Your task to perform on an android device: Open calendar and show me the first week of next month Image 0: 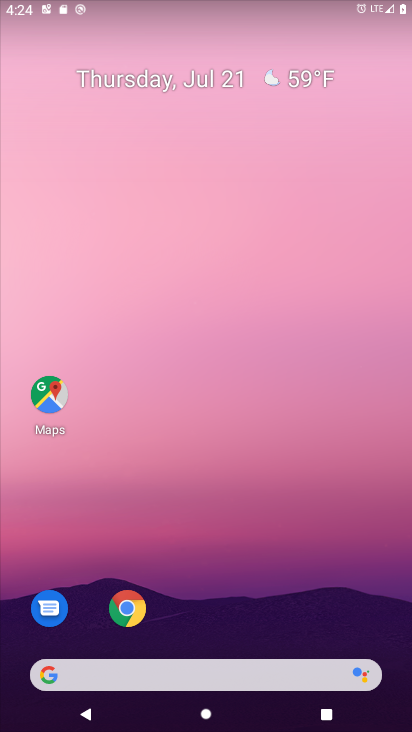
Step 0: drag from (259, 675) to (291, 0)
Your task to perform on an android device: Open calendar and show me the first week of next month Image 1: 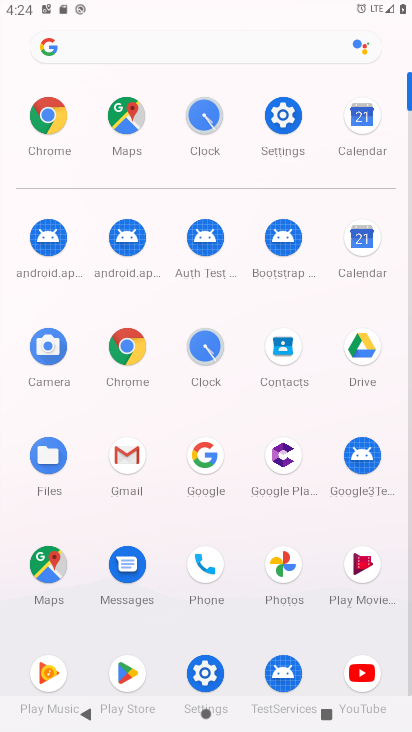
Step 1: click (365, 244)
Your task to perform on an android device: Open calendar and show me the first week of next month Image 2: 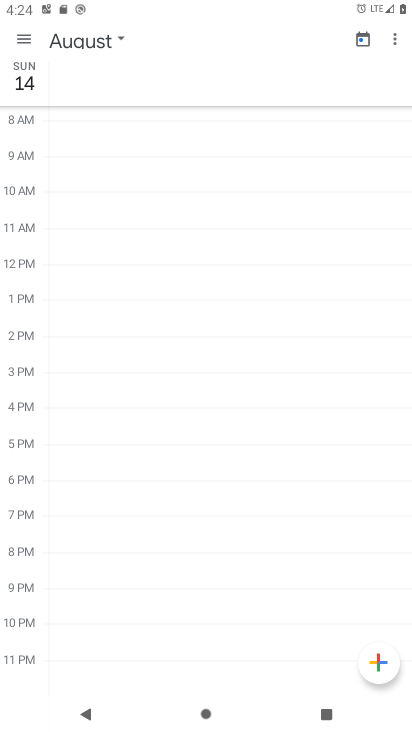
Step 2: click (116, 37)
Your task to perform on an android device: Open calendar and show me the first week of next month Image 3: 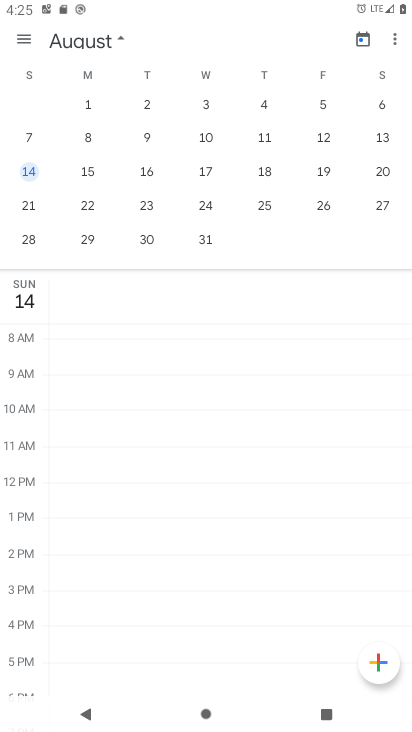
Step 3: click (263, 102)
Your task to perform on an android device: Open calendar and show me the first week of next month Image 4: 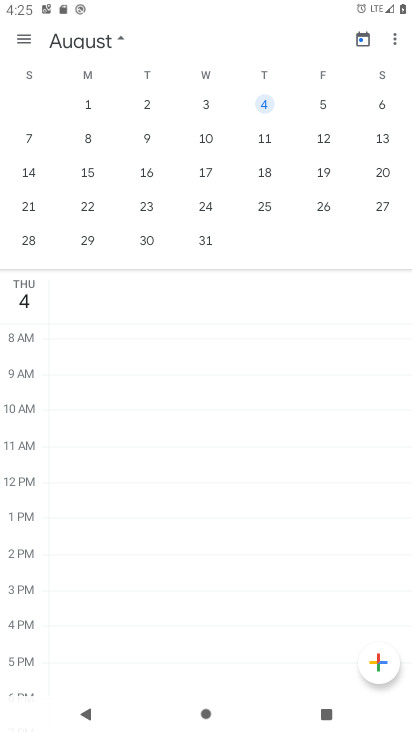
Step 4: click (26, 35)
Your task to perform on an android device: Open calendar and show me the first week of next month Image 5: 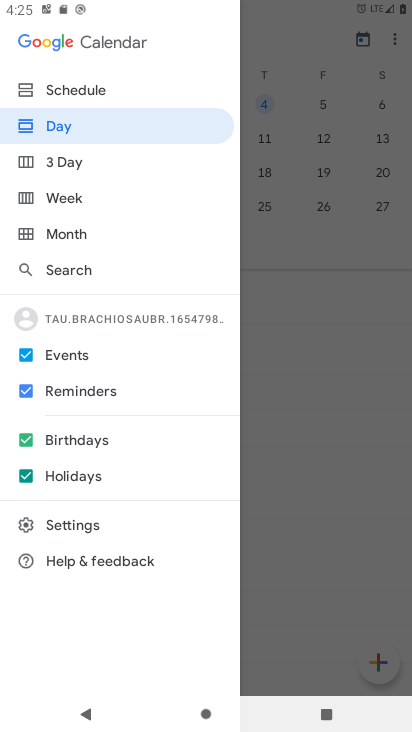
Step 5: click (83, 201)
Your task to perform on an android device: Open calendar and show me the first week of next month Image 6: 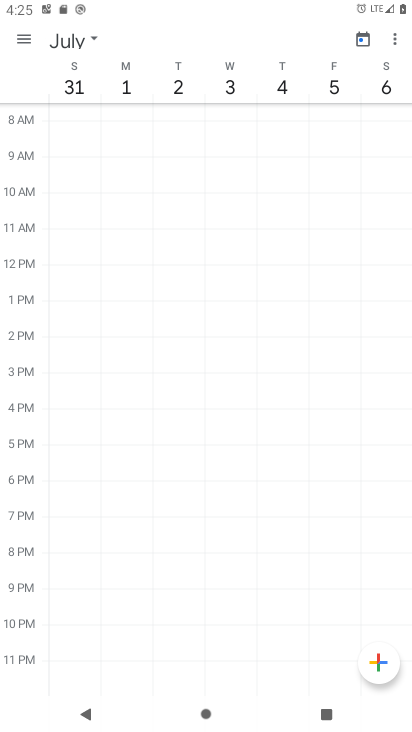
Step 6: task complete